Your task to perform on an android device: allow cookies in the chrome app Image 0: 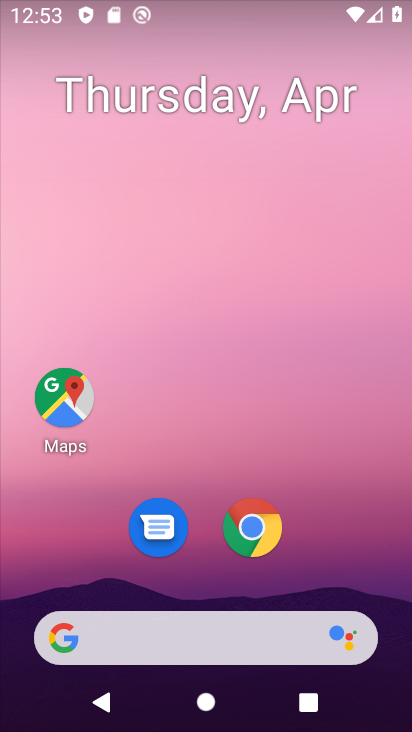
Step 0: click (253, 535)
Your task to perform on an android device: allow cookies in the chrome app Image 1: 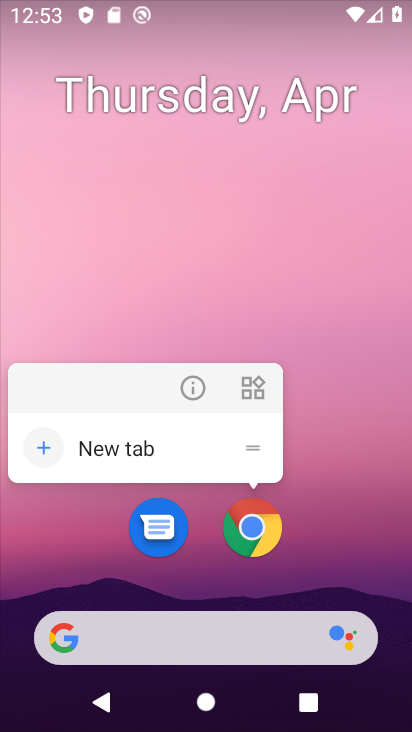
Step 1: click (258, 523)
Your task to perform on an android device: allow cookies in the chrome app Image 2: 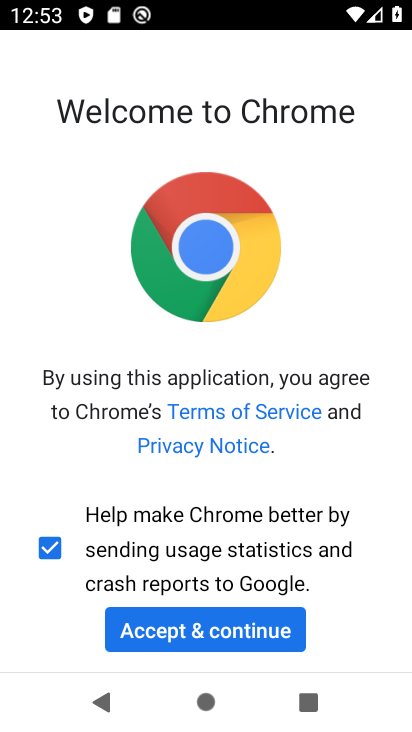
Step 2: click (193, 629)
Your task to perform on an android device: allow cookies in the chrome app Image 3: 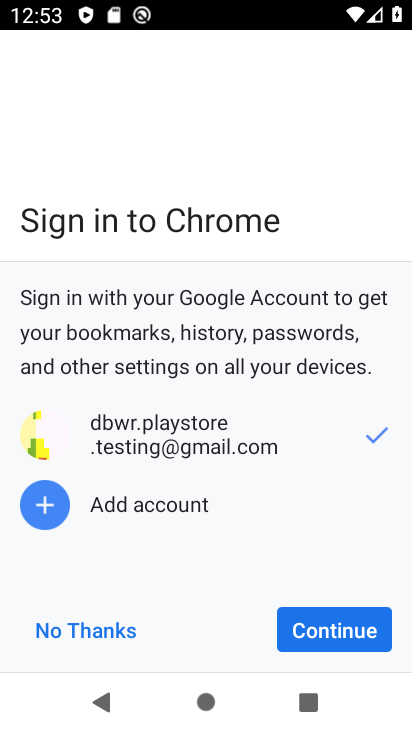
Step 3: click (324, 625)
Your task to perform on an android device: allow cookies in the chrome app Image 4: 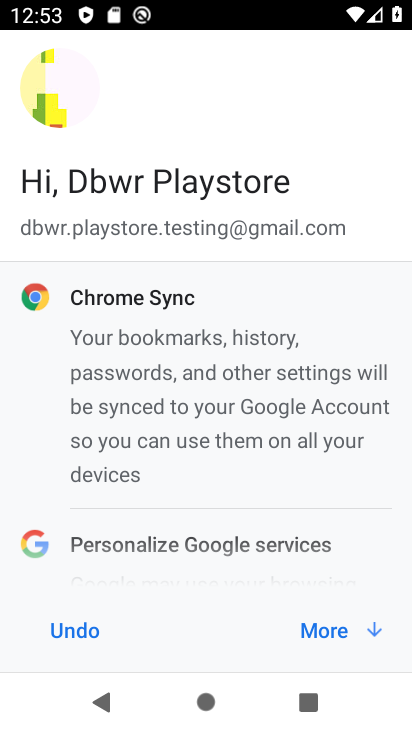
Step 4: click (324, 625)
Your task to perform on an android device: allow cookies in the chrome app Image 5: 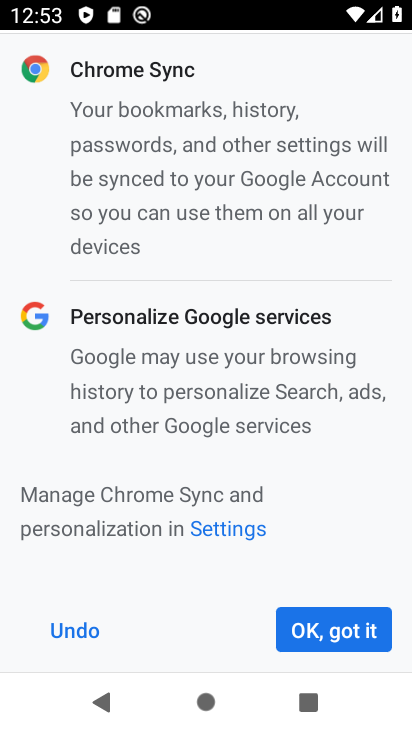
Step 5: click (324, 625)
Your task to perform on an android device: allow cookies in the chrome app Image 6: 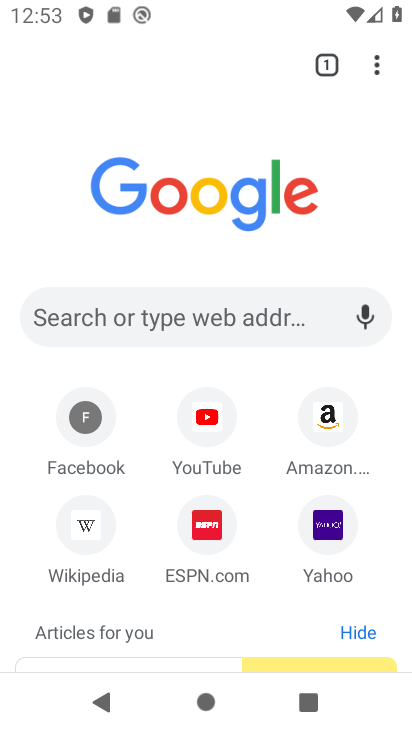
Step 6: click (377, 67)
Your task to perform on an android device: allow cookies in the chrome app Image 7: 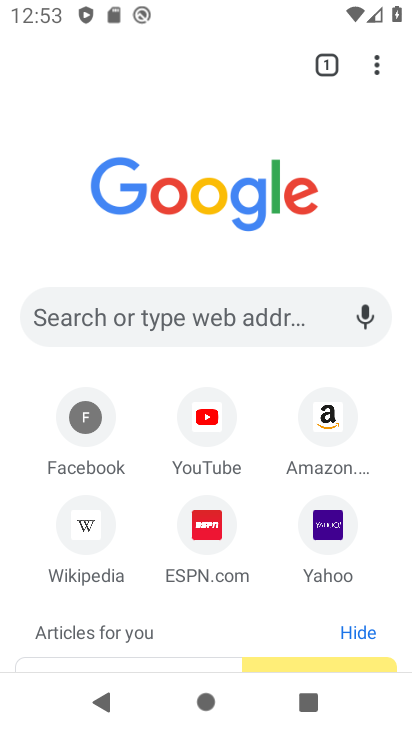
Step 7: click (374, 67)
Your task to perform on an android device: allow cookies in the chrome app Image 8: 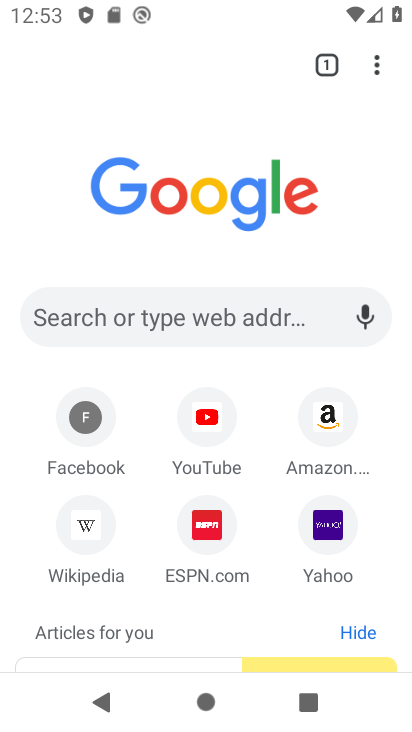
Step 8: click (382, 60)
Your task to perform on an android device: allow cookies in the chrome app Image 9: 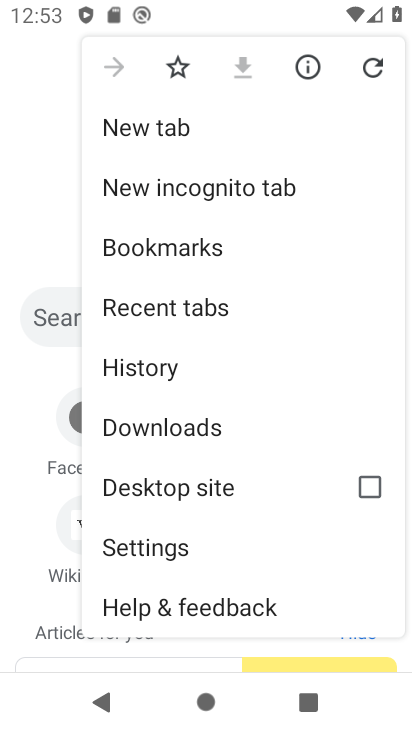
Step 9: click (141, 551)
Your task to perform on an android device: allow cookies in the chrome app Image 10: 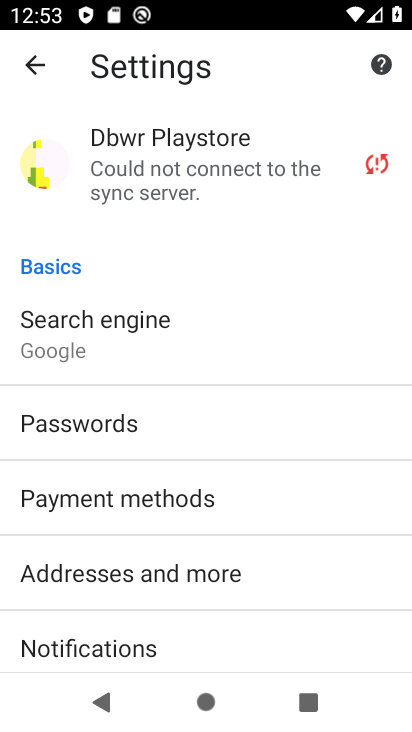
Step 10: drag from (272, 551) to (230, 394)
Your task to perform on an android device: allow cookies in the chrome app Image 11: 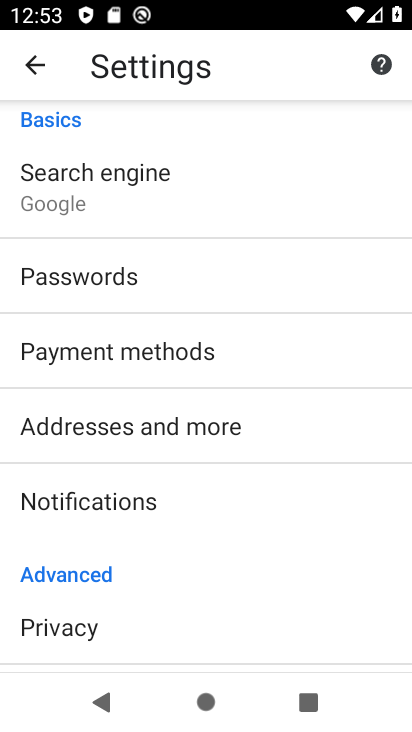
Step 11: drag from (197, 521) to (241, 258)
Your task to perform on an android device: allow cookies in the chrome app Image 12: 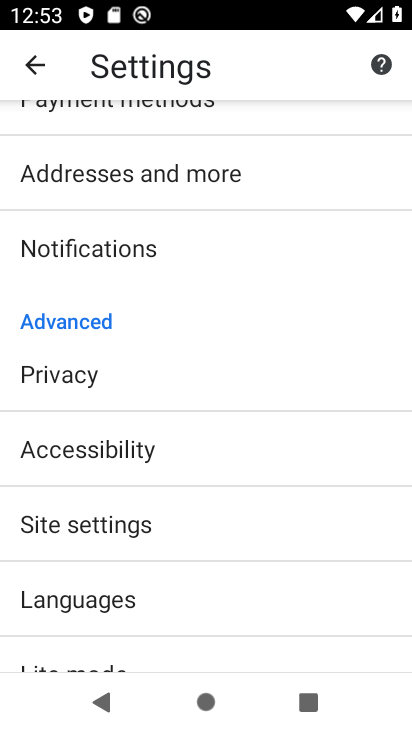
Step 12: click (91, 520)
Your task to perform on an android device: allow cookies in the chrome app Image 13: 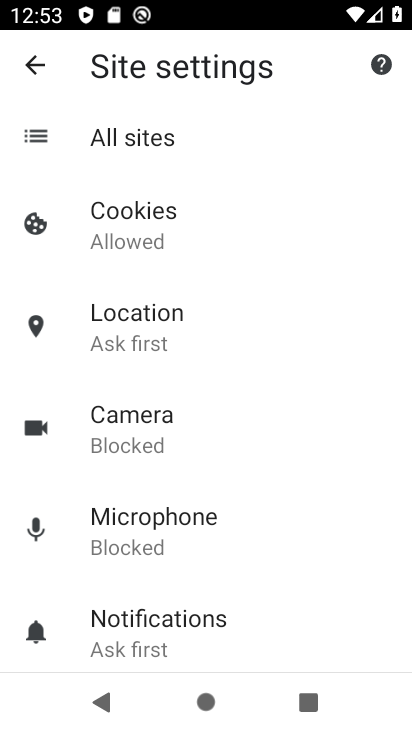
Step 13: click (127, 224)
Your task to perform on an android device: allow cookies in the chrome app Image 14: 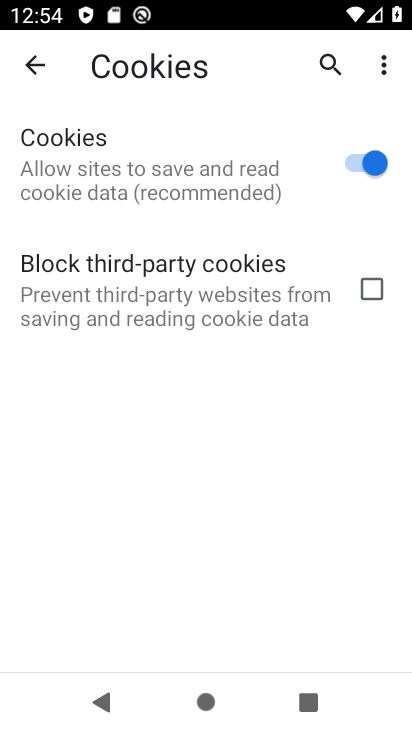
Step 14: task complete